Your task to perform on an android device: stop showing notifications on the lock screen Image 0: 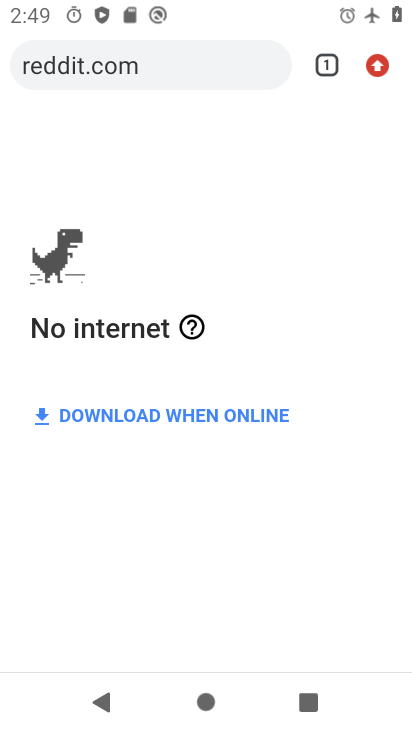
Step 0: press home button
Your task to perform on an android device: stop showing notifications on the lock screen Image 1: 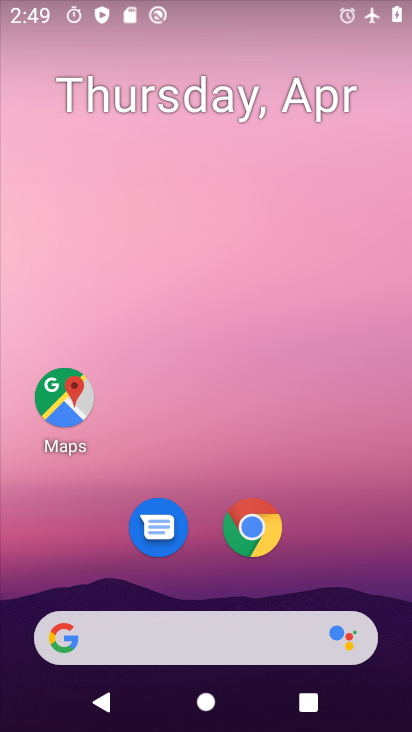
Step 1: drag from (370, 540) to (349, 71)
Your task to perform on an android device: stop showing notifications on the lock screen Image 2: 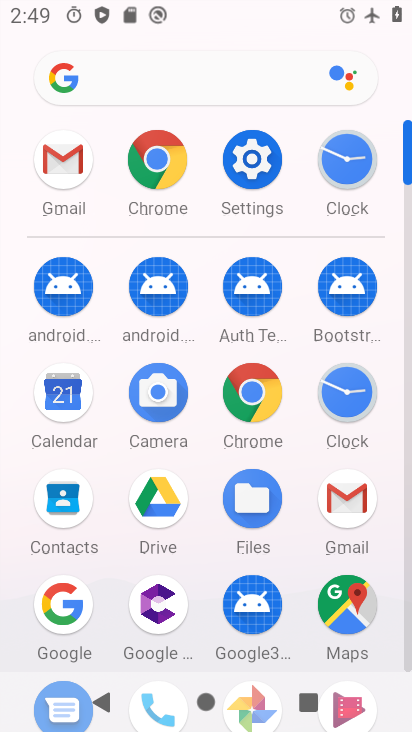
Step 2: click (254, 163)
Your task to perform on an android device: stop showing notifications on the lock screen Image 3: 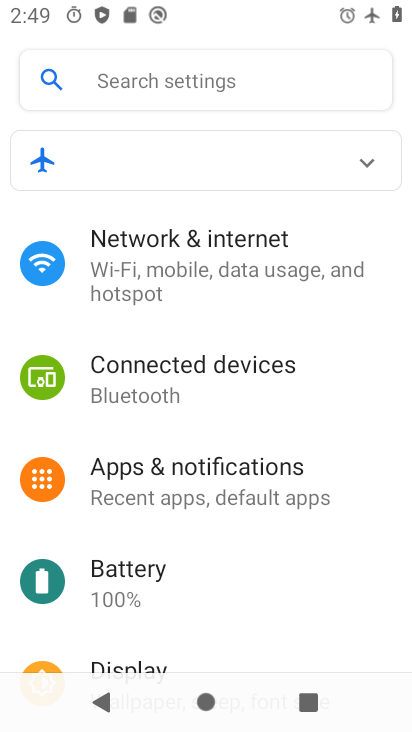
Step 3: click (213, 464)
Your task to perform on an android device: stop showing notifications on the lock screen Image 4: 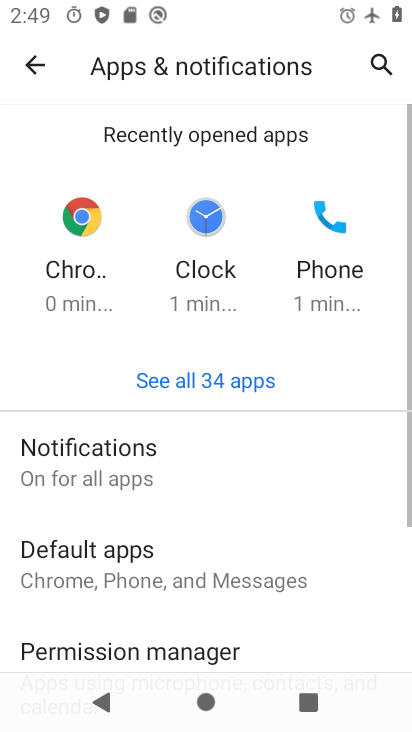
Step 4: drag from (328, 493) to (325, 174)
Your task to perform on an android device: stop showing notifications on the lock screen Image 5: 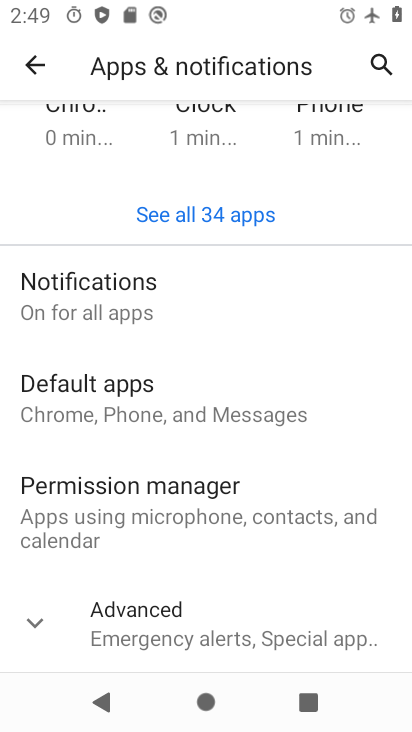
Step 5: click (159, 293)
Your task to perform on an android device: stop showing notifications on the lock screen Image 6: 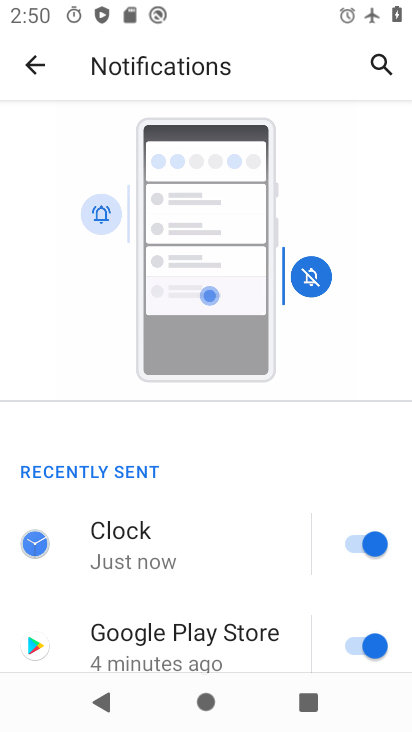
Step 6: drag from (247, 491) to (278, 132)
Your task to perform on an android device: stop showing notifications on the lock screen Image 7: 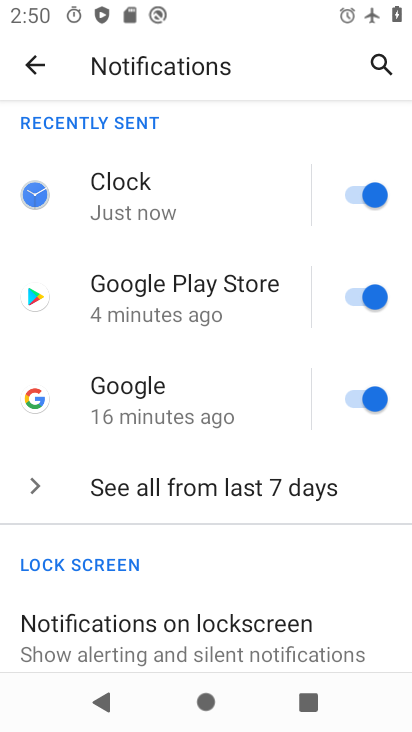
Step 7: drag from (218, 538) to (279, 101)
Your task to perform on an android device: stop showing notifications on the lock screen Image 8: 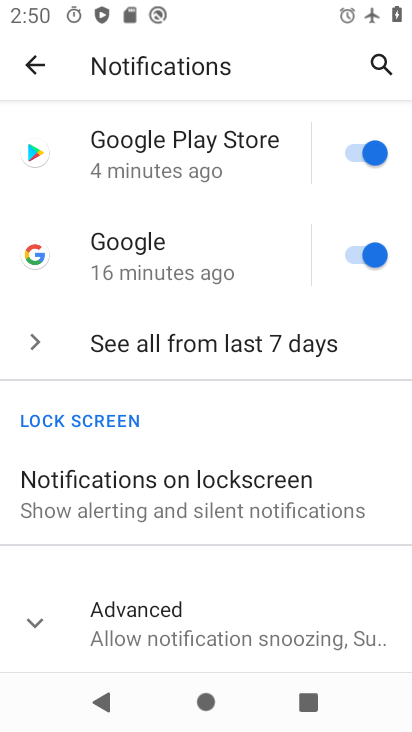
Step 8: click (168, 621)
Your task to perform on an android device: stop showing notifications on the lock screen Image 9: 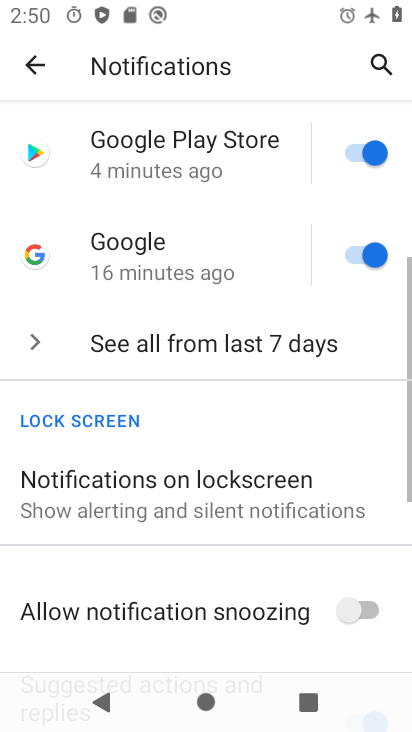
Step 9: drag from (230, 559) to (236, 187)
Your task to perform on an android device: stop showing notifications on the lock screen Image 10: 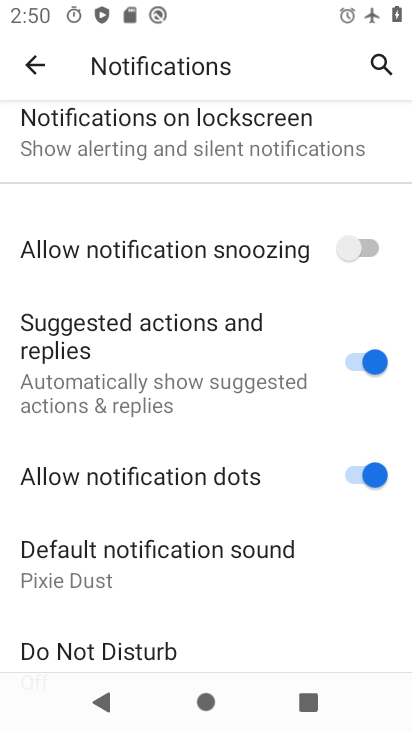
Step 10: drag from (220, 576) to (225, 168)
Your task to perform on an android device: stop showing notifications on the lock screen Image 11: 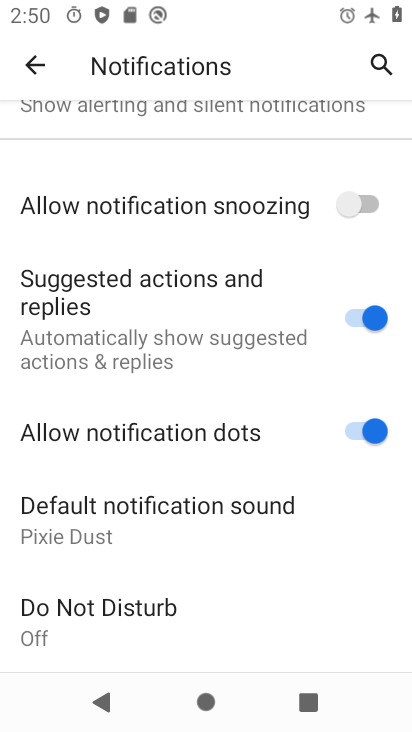
Step 11: drag from (190, 243) to (207, 399)
Your task to perform on an android device: stop showing notifications on the lock screen Image 12: 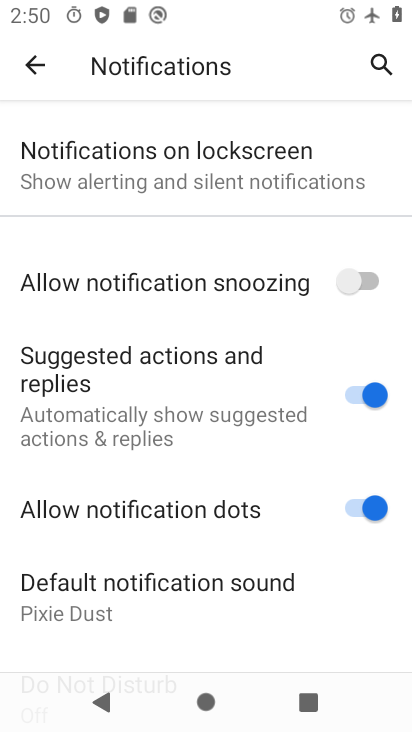
Step 12: click (217, 159)
Your task to perform on an android device: stop showing notifications on the lock screen Image 13: 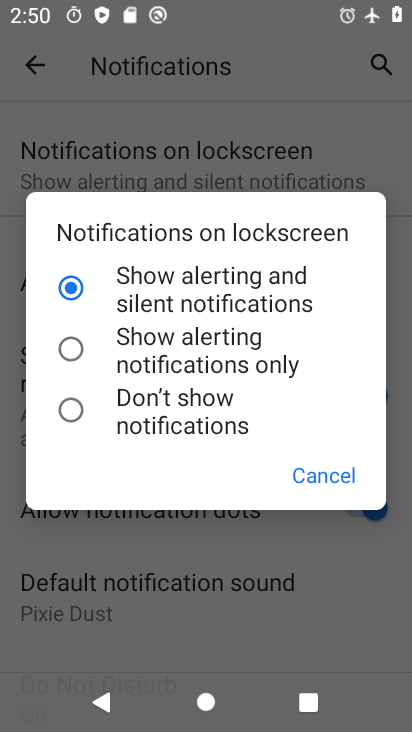
Step 13: click (166, 410)
Your task to perform on an android device: stop showing notifications on the lock screen Image 14: 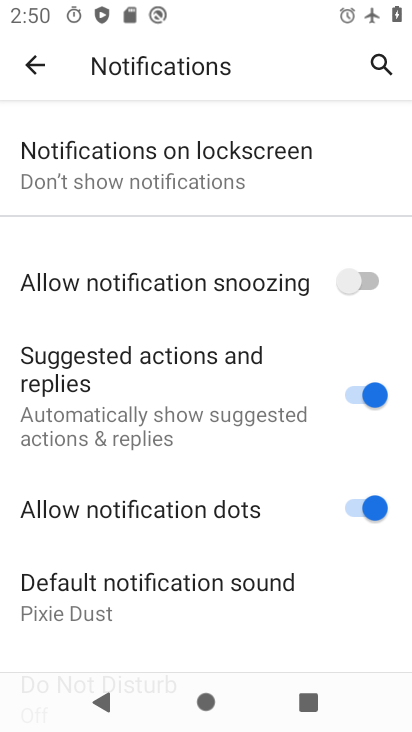
Step 14: task complete